Your task to perform on an android device: Find coffee shops on Maps Image 0: 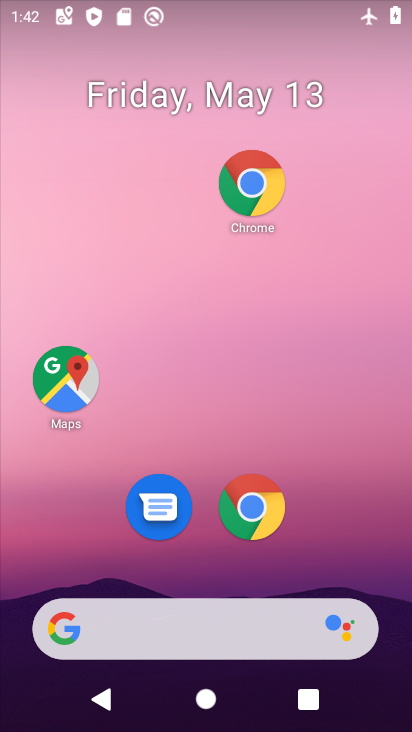
Step 0: drag from (305, 700) to (291, 175)
Your task to perform on an android device: Find coffee shops on Maps Image 1: 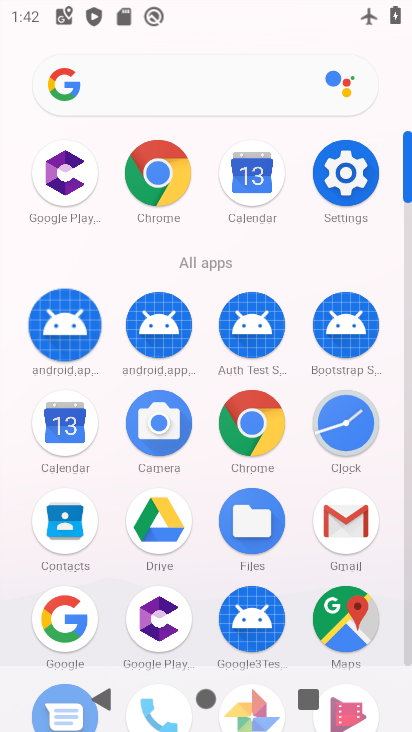
Step 1: click (341, 630)
Your task to perform on an android device: Find coffee shops on Maps Image 2: 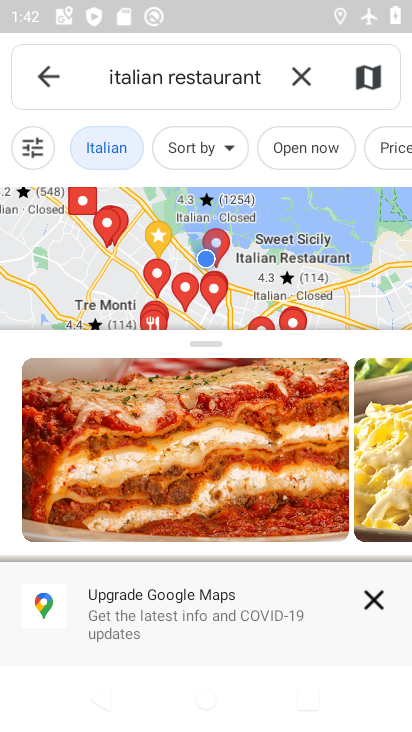
Step 2: task complete